Your task to perform on an android device: Search for seafood restaurants on Google Maps Image 0: 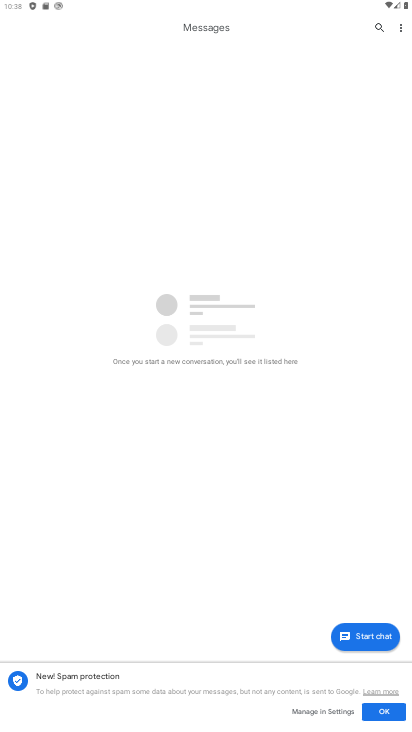
Step 0: press home button
Your task to perform on an android device: Search for seafood restaurants on Google Maps Image 1: 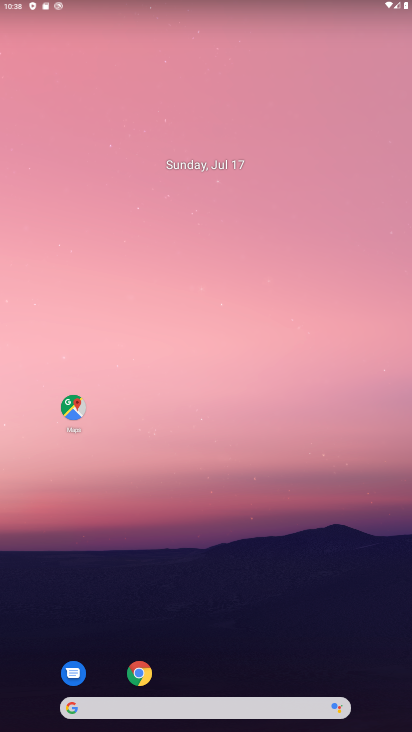
Step 1: click (77, 405)
Your task to perform on an android device: Search for seafood restaurants on Google Maps Image 2: 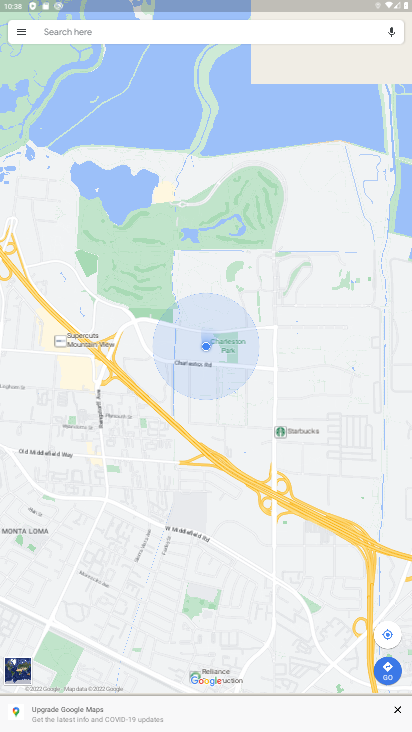
Step 2: click (184, 35)
Your task to perform on an android device: Search for seafood restaurants on Google Maps Image 3: 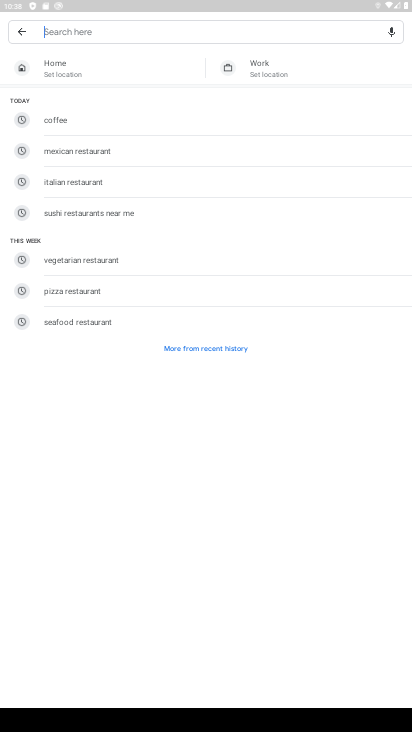
Step 3: click (85, 323)
Your task to perform on an android device: Search for seafood restaurants on Google Maps Image 4: 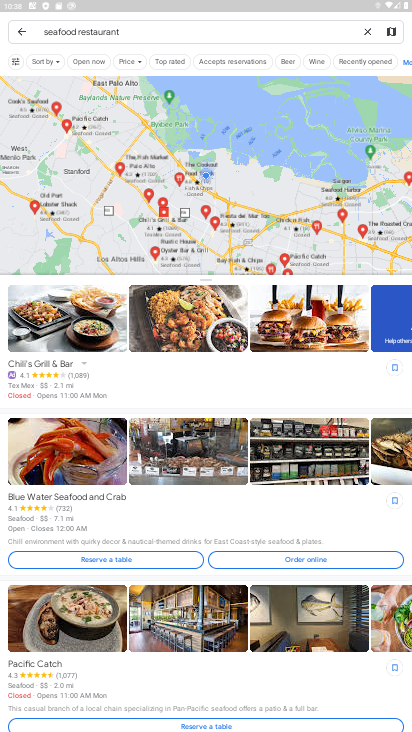
Step 4: task complete